Your task to perform on an android device: Show me productivity apps on the Play Store Image 0: 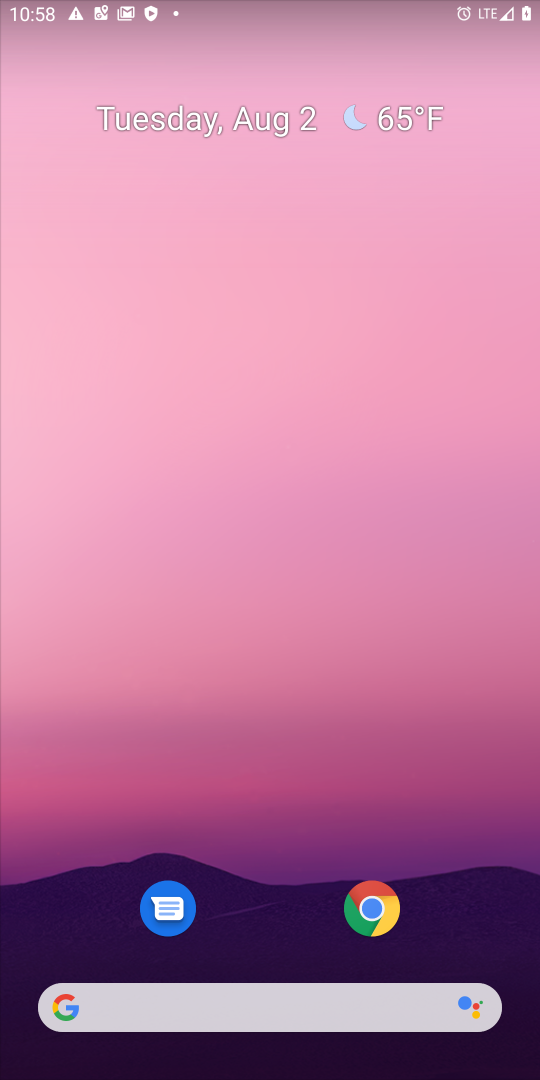
Step 0: drag from (258, 917) to (262, 72)
Your task to perform on an android device: Show me productivity apps on the Play Store Image 1: 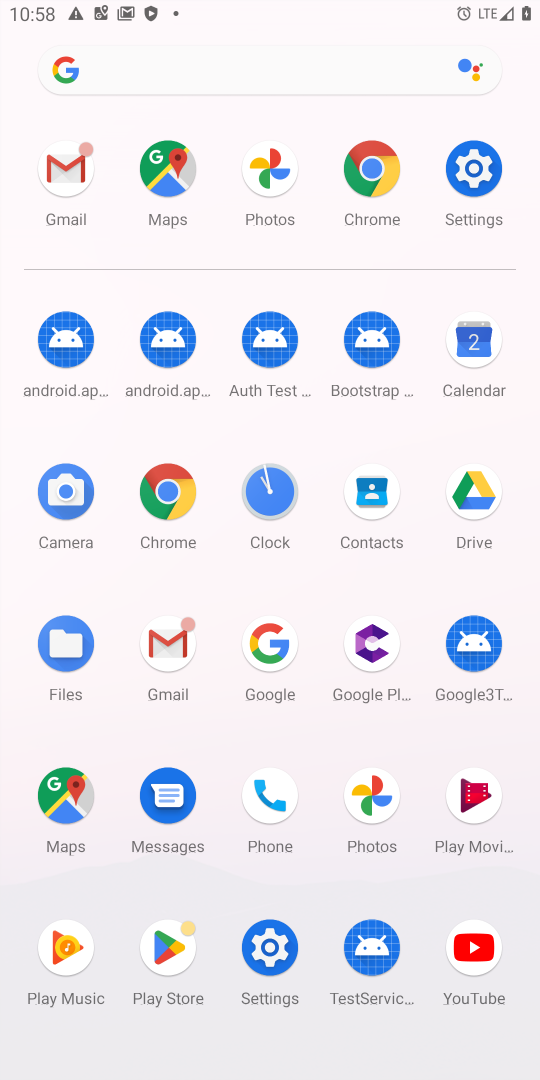
Step 1: click (188, 954)
Your task to perform on an android device: Show me productivity apps on the Play Store Image 2: 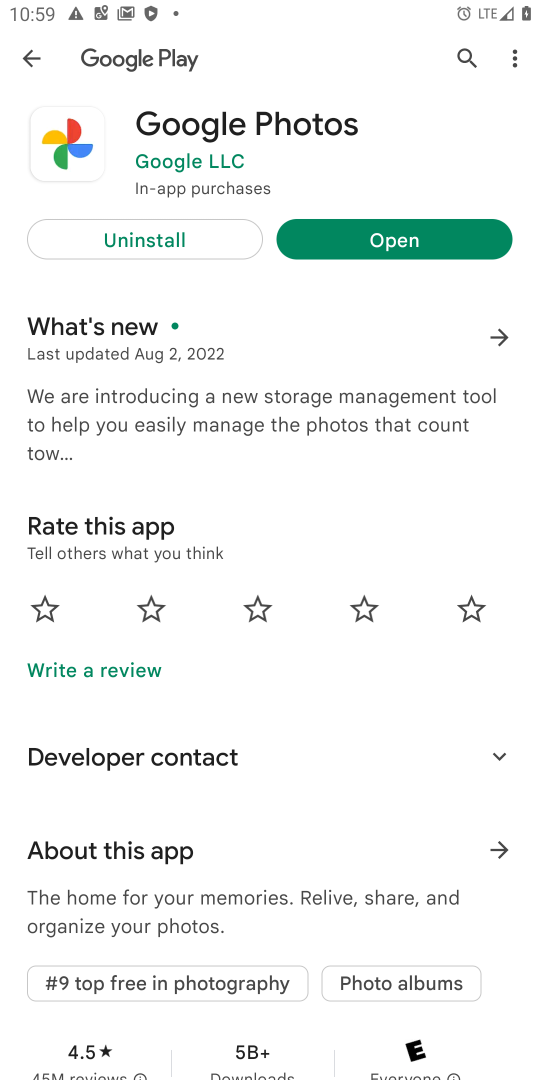
Step 2: press back button
Your task to perform on an android device: Show me productivity apps on the Play Store Image 3: 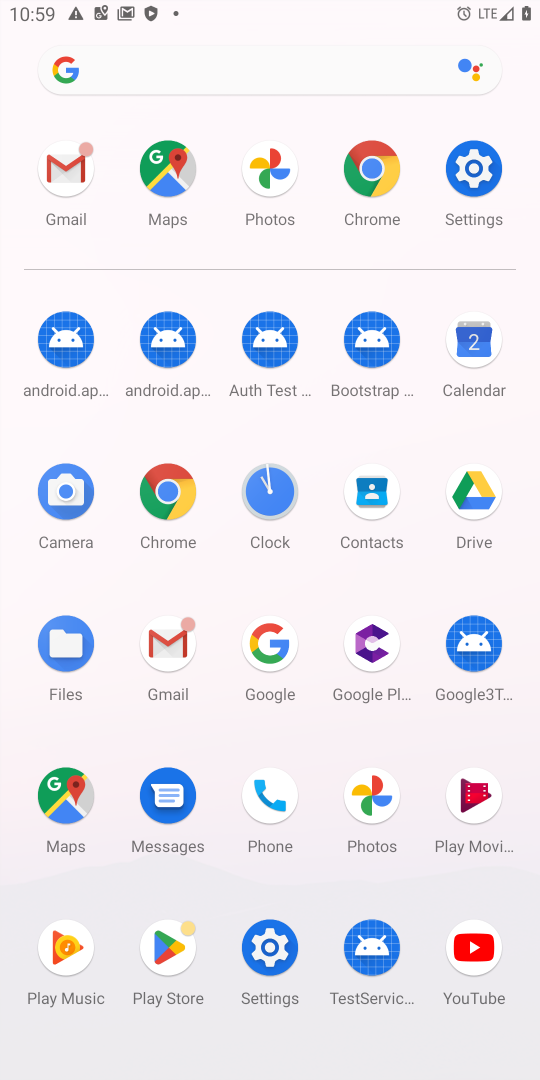
Step 3: click (167, 932)
Your task to perform on an android device: Show me productivity apps on the Play Store Image 4: 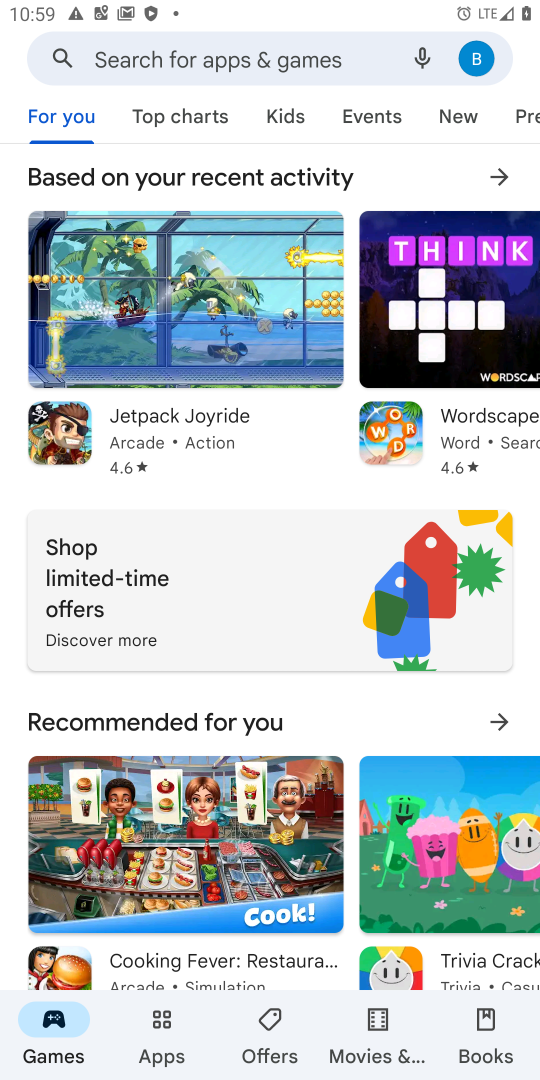
Step 4: click (208, 46)
Your task to perform on an android device: Show me productivity apps on the Play Store Image 5: 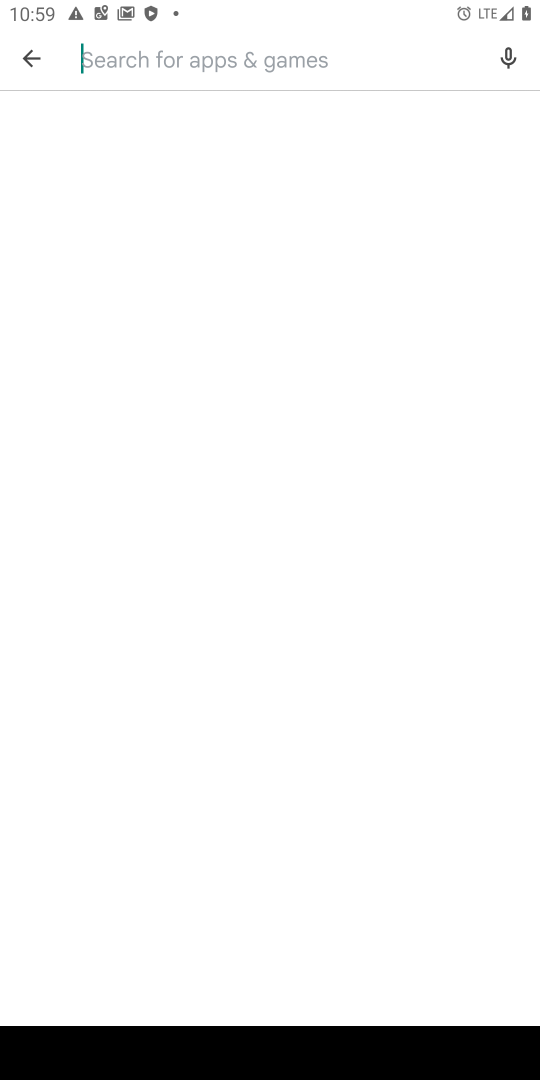
Step 5: type "productivity apps "
Your task to perform on an android device: Show me productivity apps on the Play Store Image 6: 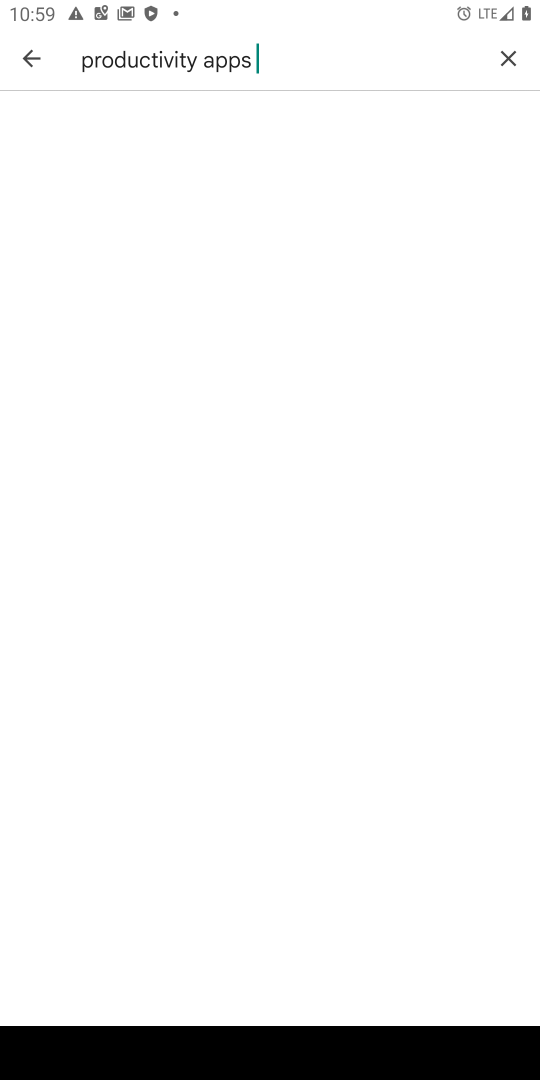
Step 6: type ""
Your task to perform on an android device: Show me productivity apps on the Play Store Image 7: 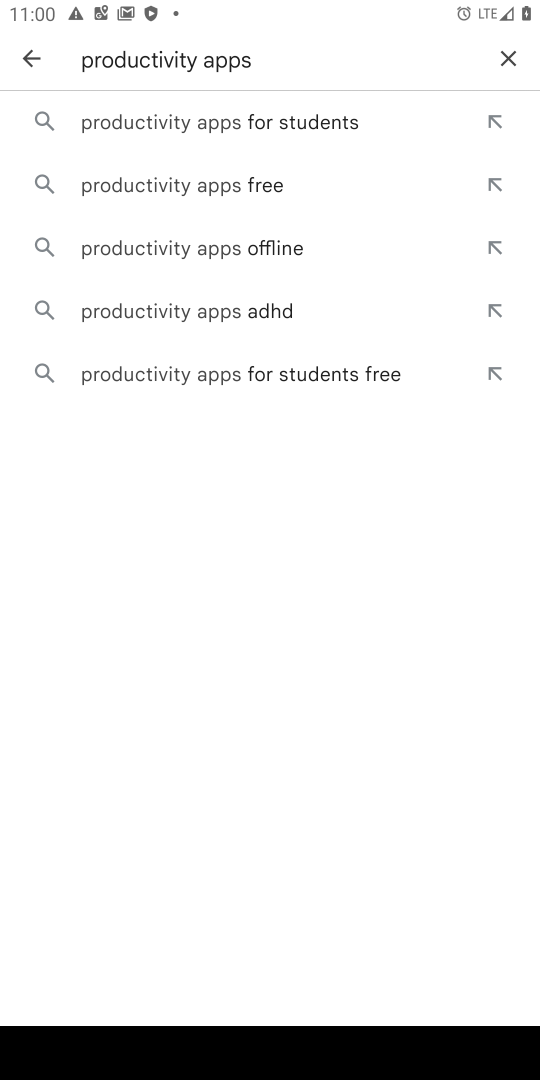
Step 7: click (255, 189)
Your task to perform on an android device: Show me productivity apps on the Play Store Image 8: 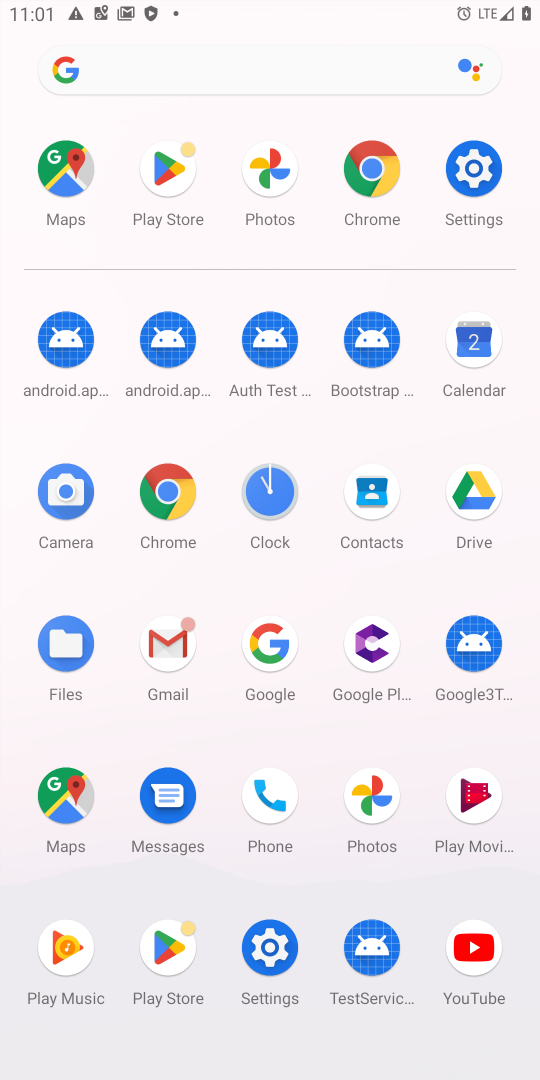
Step 8: task complete